Your task to perform on an android device: delete location history Image 0: 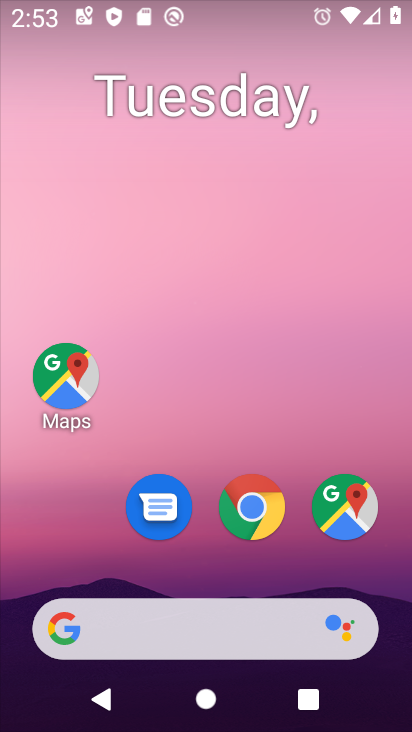
Step 0: drag from (218, 561) to (267, 215)
Your task to perform on an android device: delete location history Image 1: 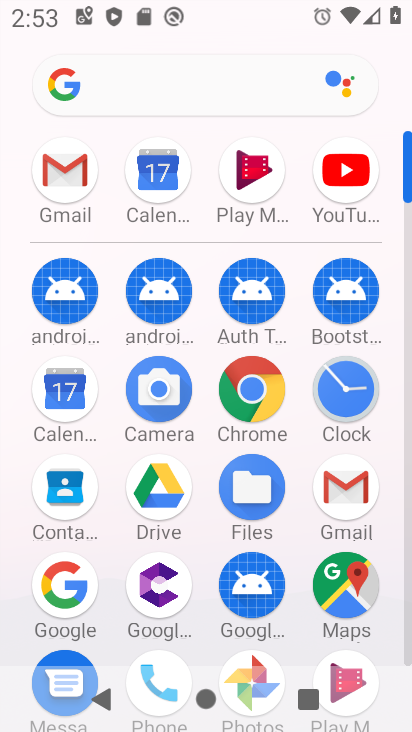
Step 1: drag from (288, 585) to (326, 132)
Your task to perform on an android device: delete location history Image 2: 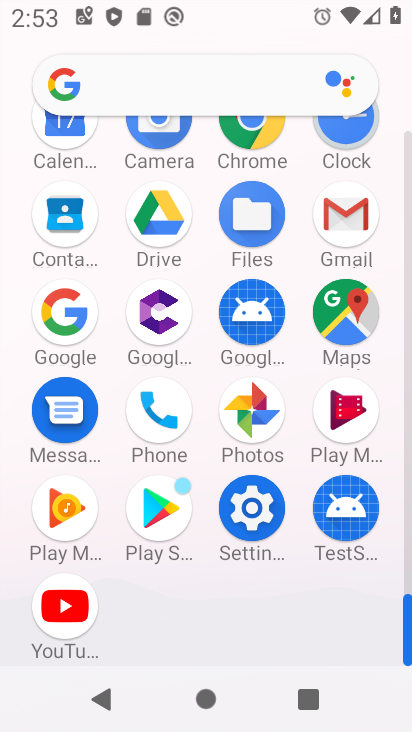
Step 2: click (250, 510)
Your task to perform on an android device: delete location history Image 3: 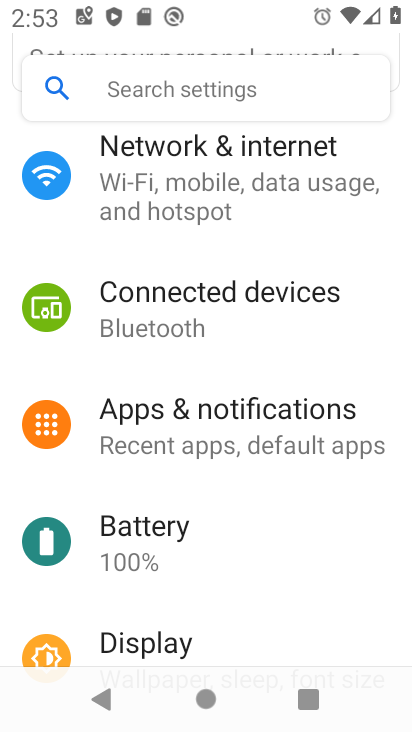
Step 3: drag from (234, 565) to (279, 201)
Your task to perform on an android device: delete location history Image 4: 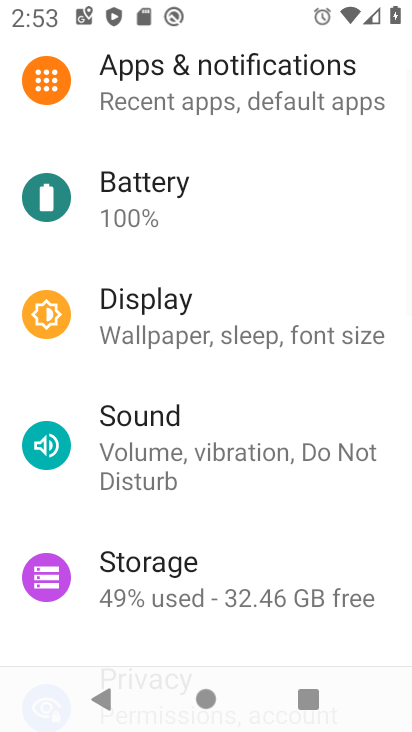
Step 4: drag from (158, 573) to (234, 212)
Your task to perform on an android device: delete location history Image 5: 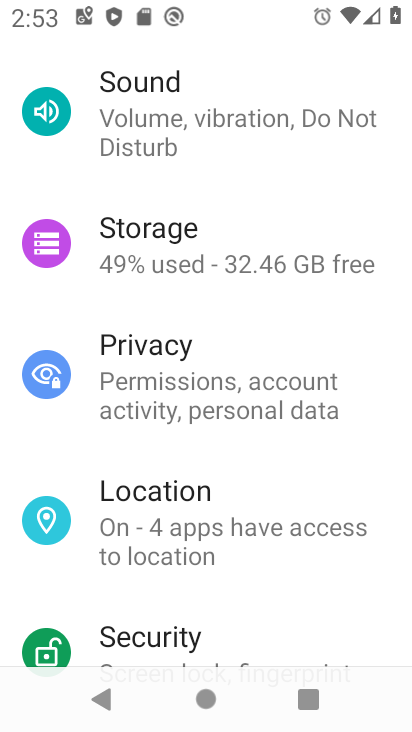
Step 5: click (142, 526)
Your task to perform on an android device: delete location history Image 6: 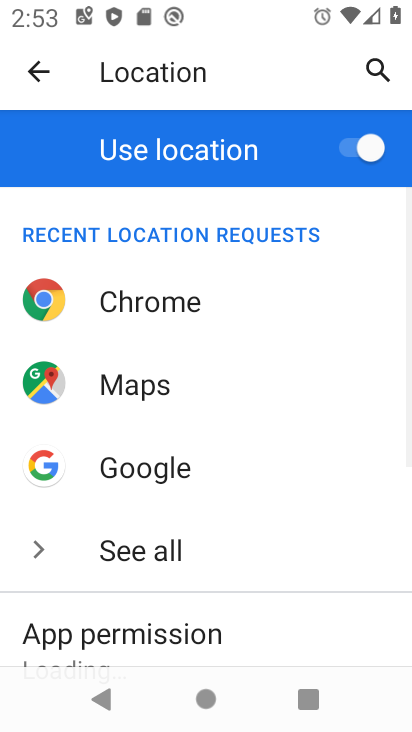
Step 6: drag from (249, 631) to (302, 231)
Your task to perform on an android device: delete location history Image 7: 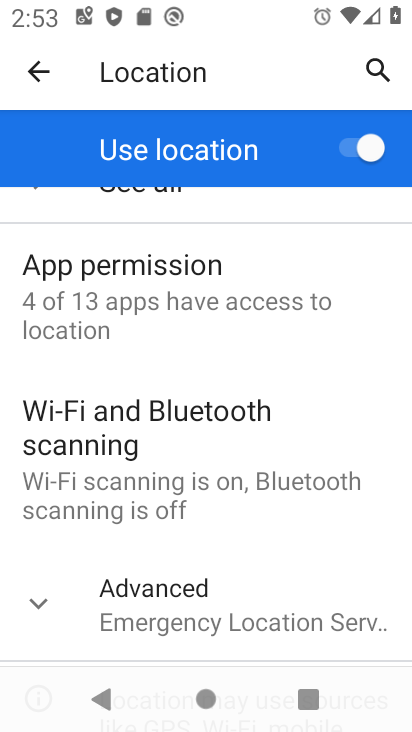
Step 7: drag from (163, 556) to (234, 250)
Your task to perform on an android device: delete location history Image 8: 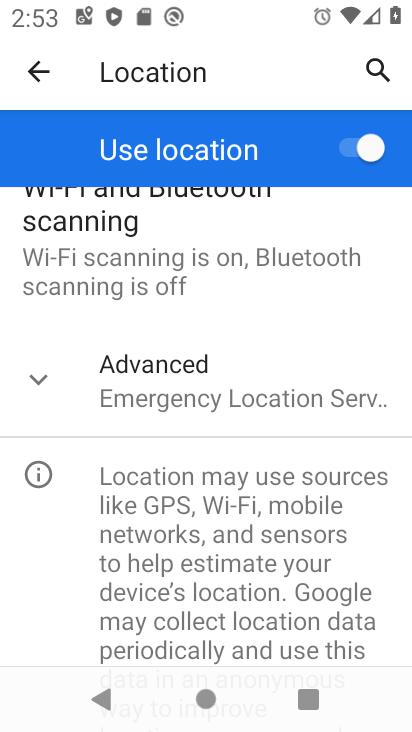
Step 8: click (128, 382)
Your task to perform on an android device: delete location history Image 9: 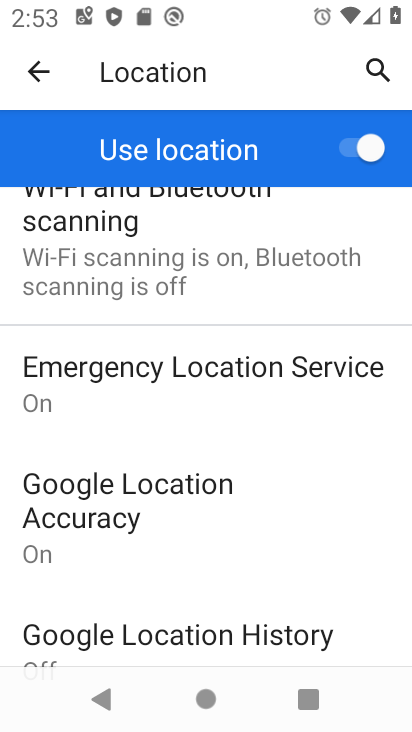
Step 9: drag from (189, 610) to (228, 406)
Your task to perform on an android device: delete location history Image 10: 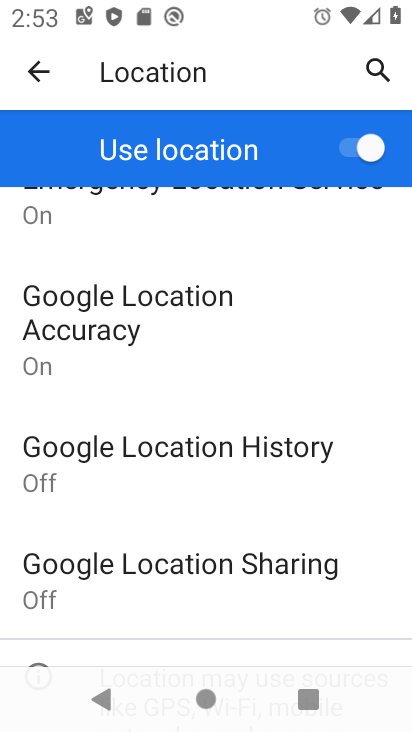
Step 10: click (177, 478)
Your task to perform on an android device: delete location history Image 11: 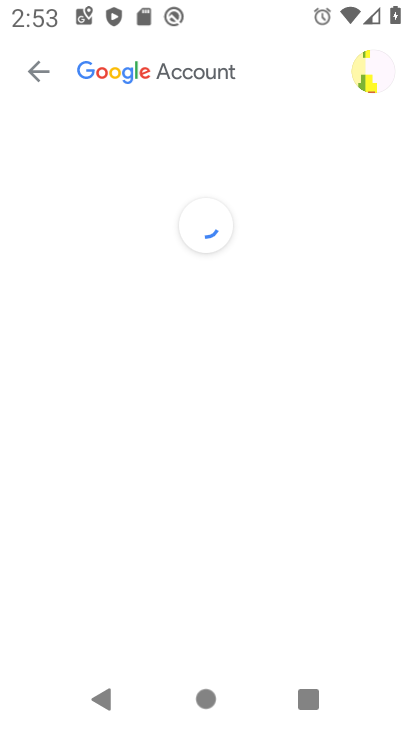
Step 11: click (32, 61)
Your task to perform on an android device: delete location history Image 12: 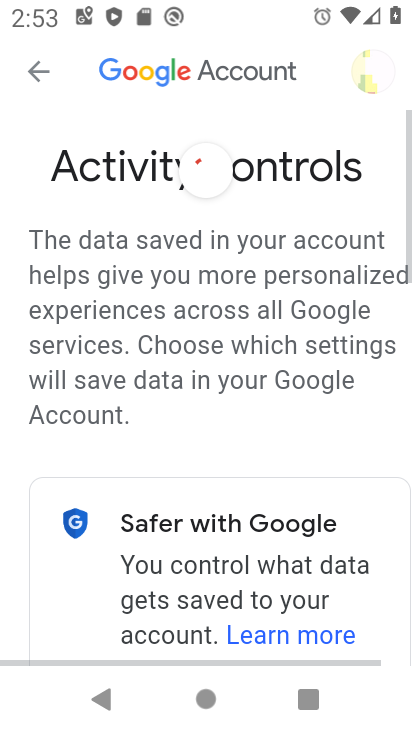
Step 12: click (25, 74)
Your task to perform on an android device: delete location history Image 13: 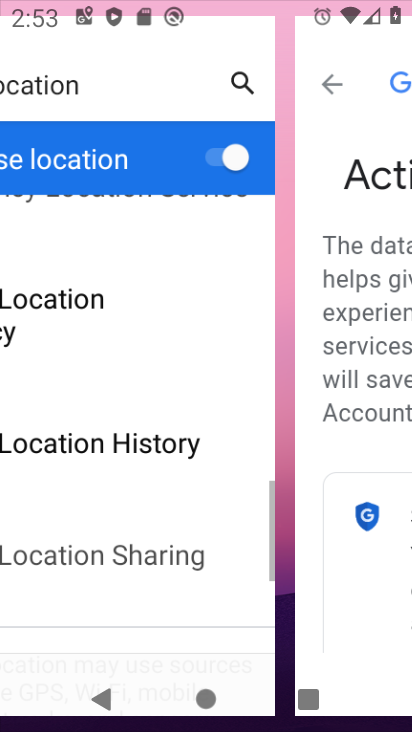
Step 13: press home button
Your task to perform on an android device: delete location history Image 14: 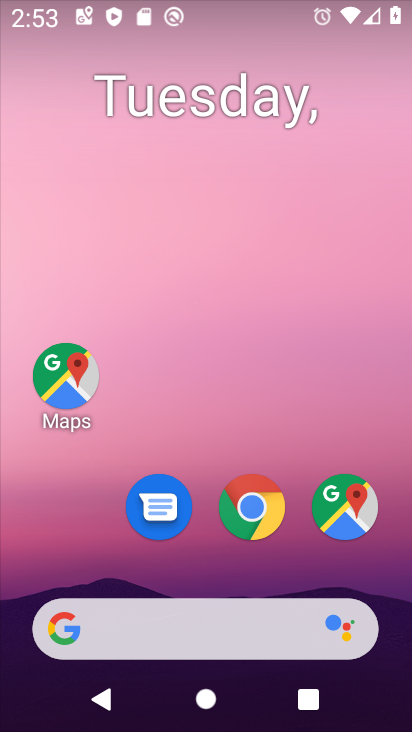
Step 14: click (75, 369)
Your task to perform on an android device: delete location history Image 15: 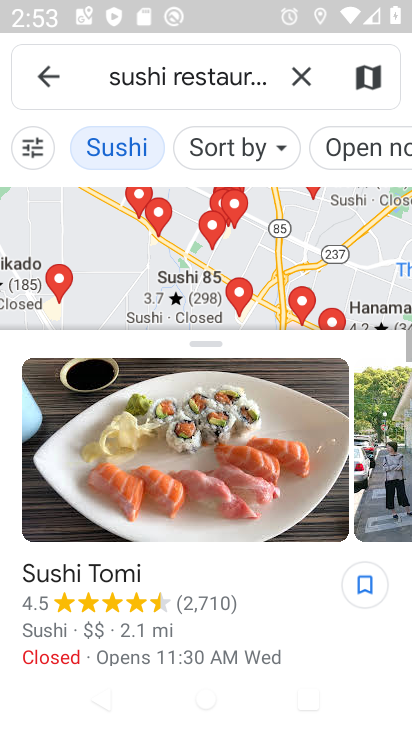
Step 15: click (304, 72)
Your task to perform on an android device: delete location history Image 16: 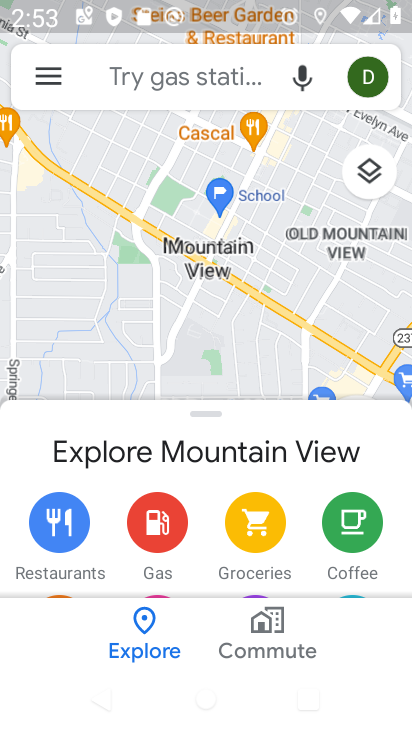
Step 16: click (52, 77)
Your task to perform on an android device: delete location history Image 17: 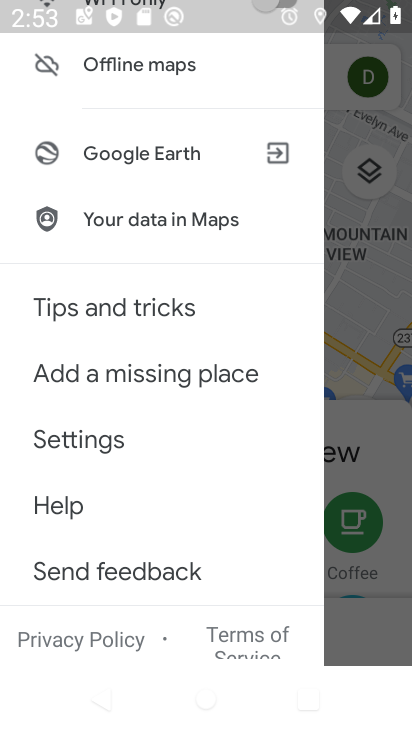
Step 17: click (97, 436)
Your task to perform on an android device: delete location history Image 18: 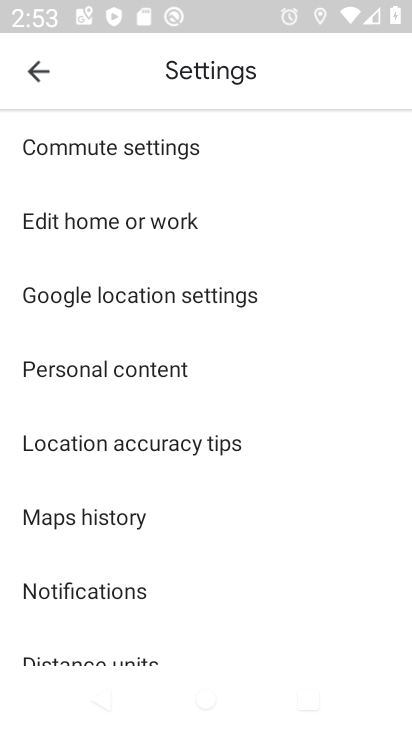
Step 18: click (23, 63)
Your task to perform on an android device: delete location history Image 19: 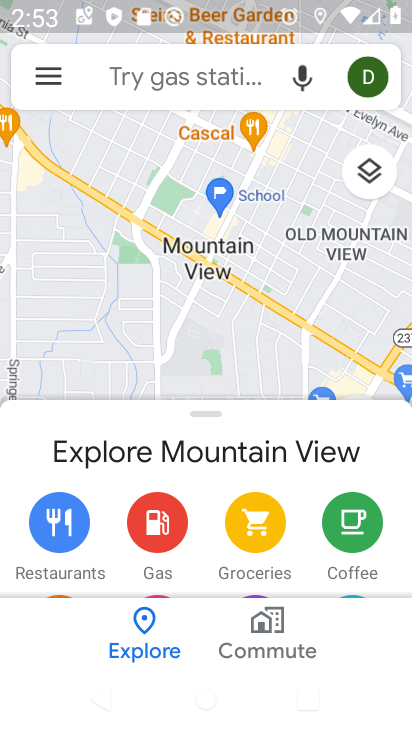
Step 19: click (58, 68)
Your task to perform on an android device: delete location history Image 20: 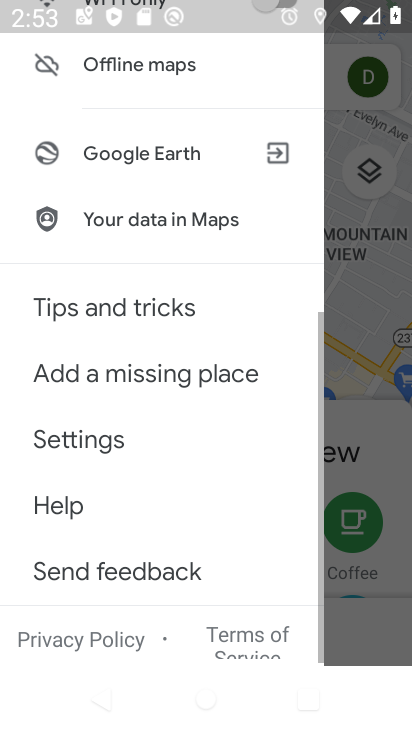
Step 20: drag from (119, 160) to (92, 566)
Your task to perform on an android device: delete location history Image 21: 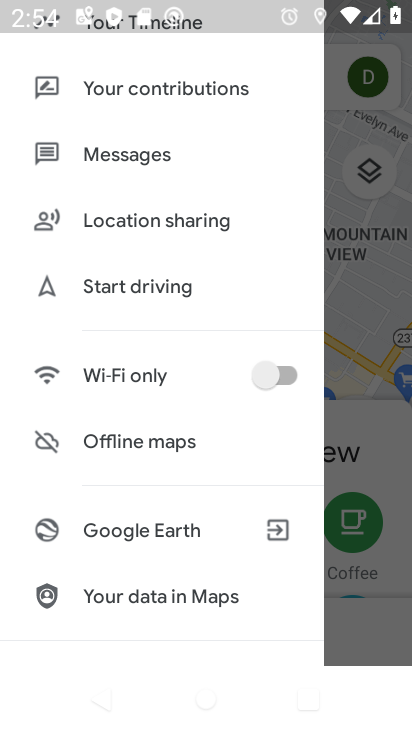
Step 21: drag from (179, 268) to (137, 535)
Your task to perform on an android device: delete location history Image 22: 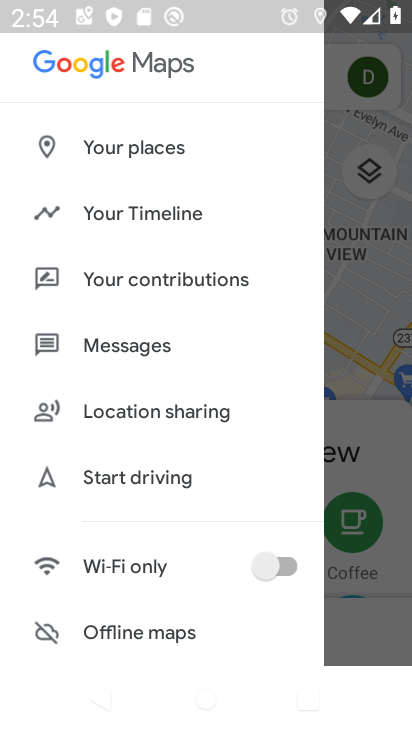
Step 22: click (120, 208)
Your task to perform on an android device: delete location history Image 23: 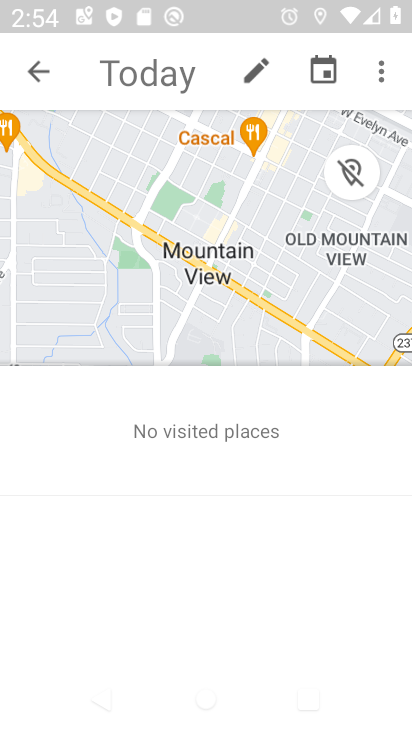
Step 23: click (371, 71)
Your task to perform on an android device: delete location history Image 24: 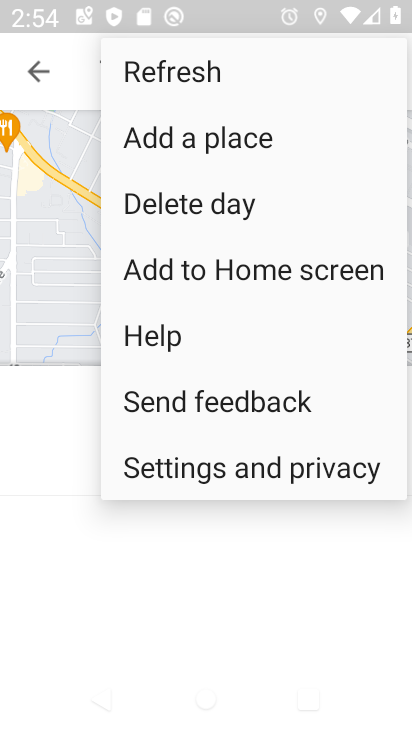
Step 24: click (199, 470)
Your task to perform on an android device: delete location history Image 25: 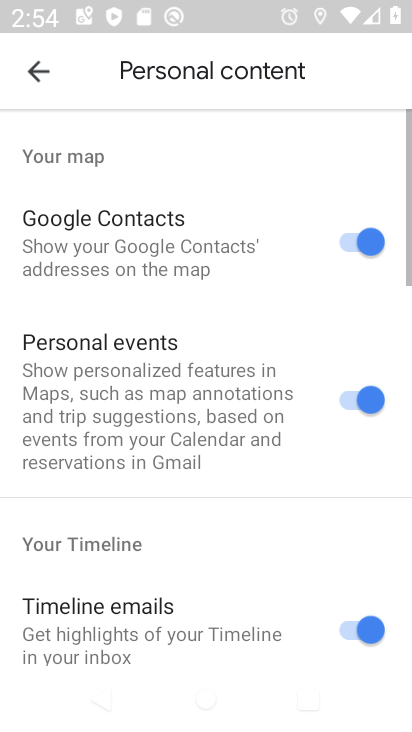
Step 25: drag from (211, 554) to (201, 125)
Your task to perform on an android device: delete location history Image 26: 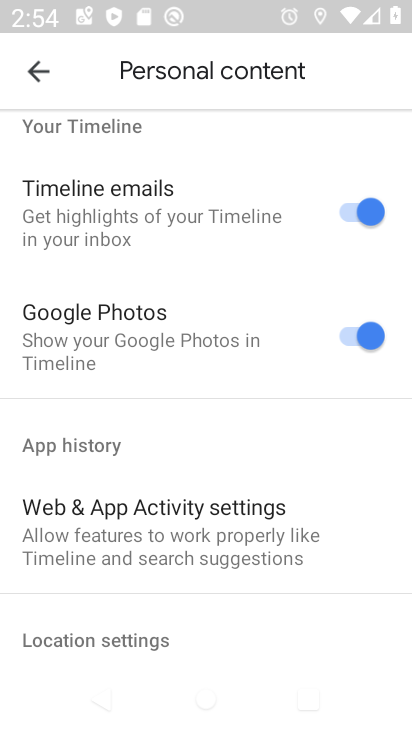
Step 26: drag from (158, 611) to (217, 197)
Your task to perform on an android device: delete location history Image 27: 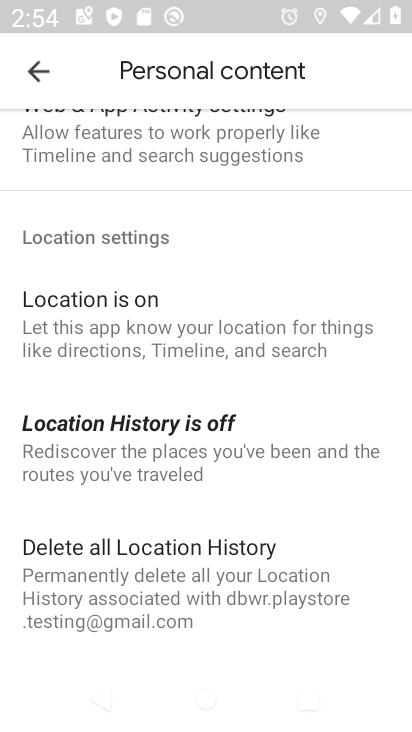
Step 27: drag from (173, 610) to (185, 568)
Your task to perform on an android device: delete location history Image 28: 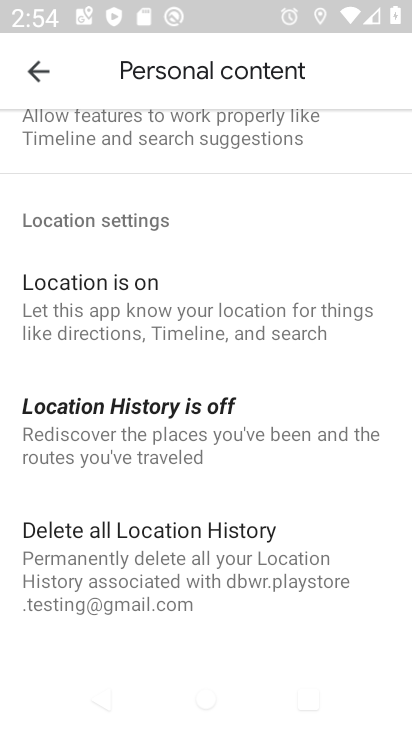
Step 28: click (183, 562)
Your task to perform on an android device: delete location history Image 29: 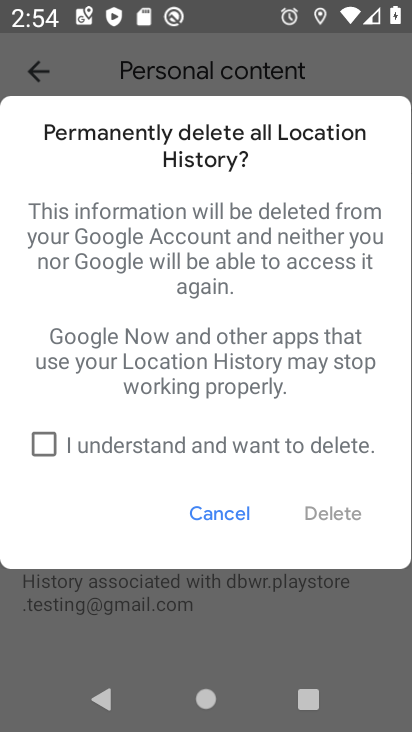
Step 29: click (34, 444)
Your task to perform on an android device: delete location history Image 30: 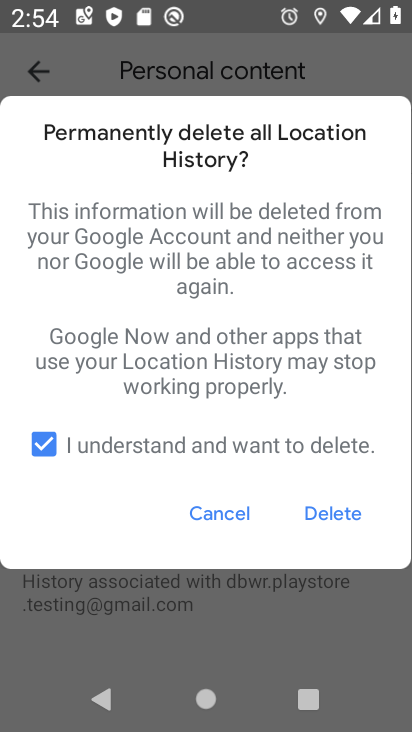
Step 30: click (316, 517)
Your task to perform on an android device: delete location history Image 31: 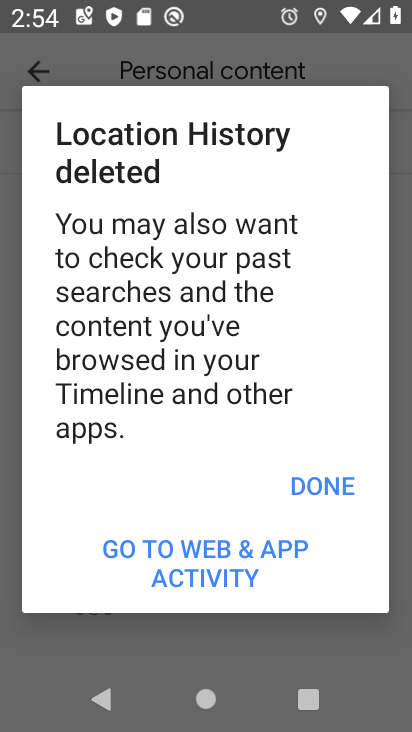
Step 31: task complete